Your task to perform on an android device: Open Youtube and go to "Your channel" Image 0: 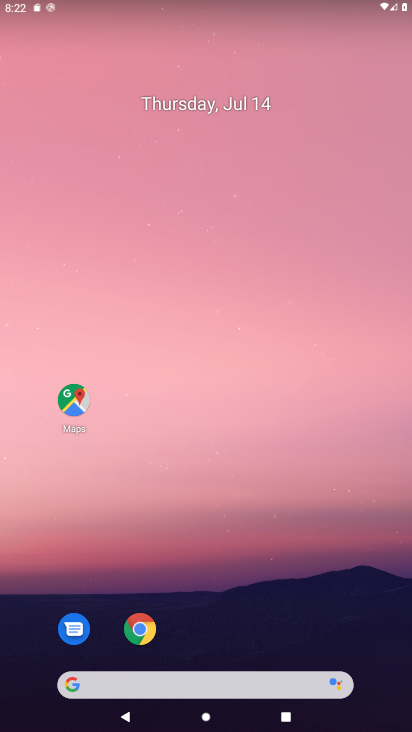
Step 0: drag from (202, 626) to (231, 8)
Your task to perform on an android device: Open Youtube and go to "Your channel" Image 1: 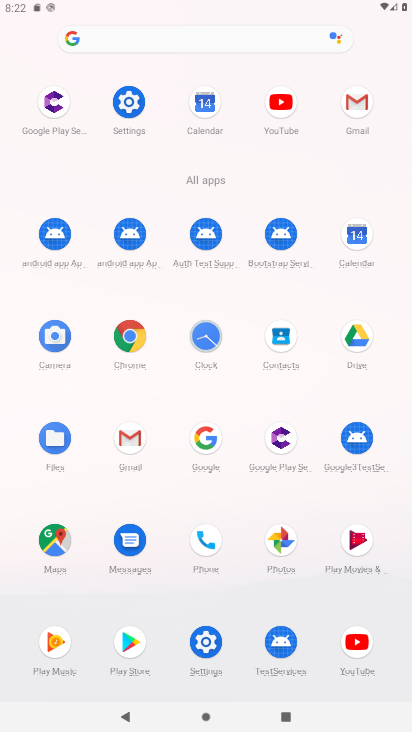
Step 1: click (363, 653)
Your task to perform on an android device: Open Youtube and go to "Your channel" Image 2: 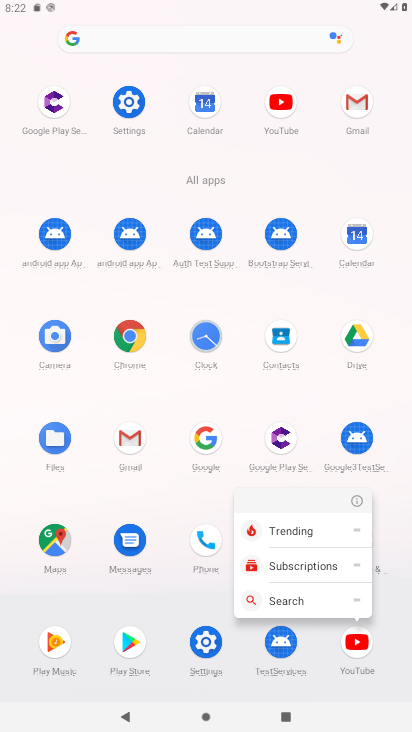
Step 2: click (363, 647)
Your task to perform on an android device: Open Youtube and go to "Your channel" Image 3: 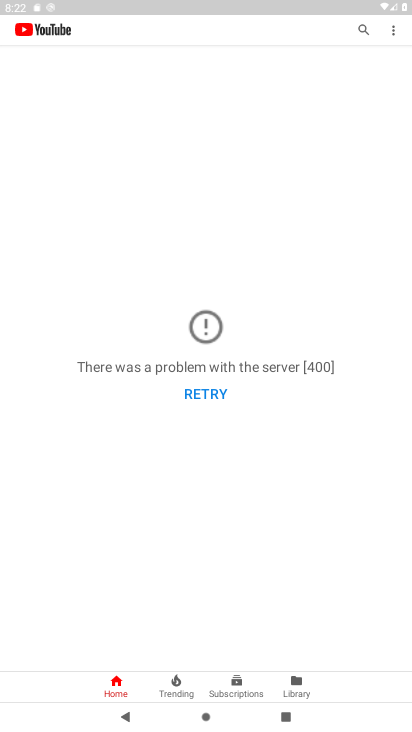
Step 3: click (196, 392)
Your task to perform on an android device: Open Youtube and go to "Your channel" Image 4: 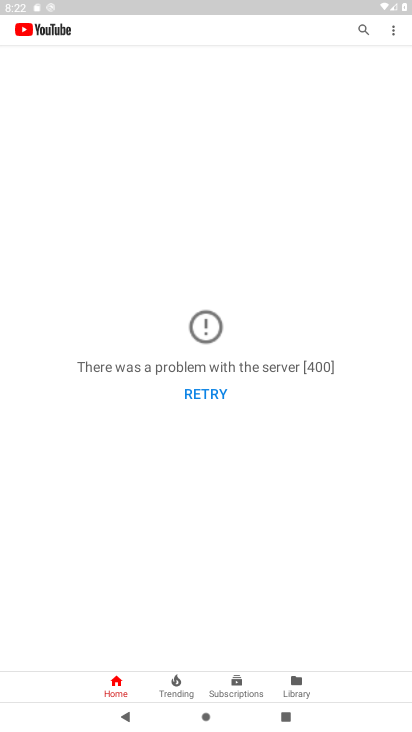
Step 4: click (196, 395)
Your task to perform on an android device: Open Youtube and go to "Your channel" Image 5: 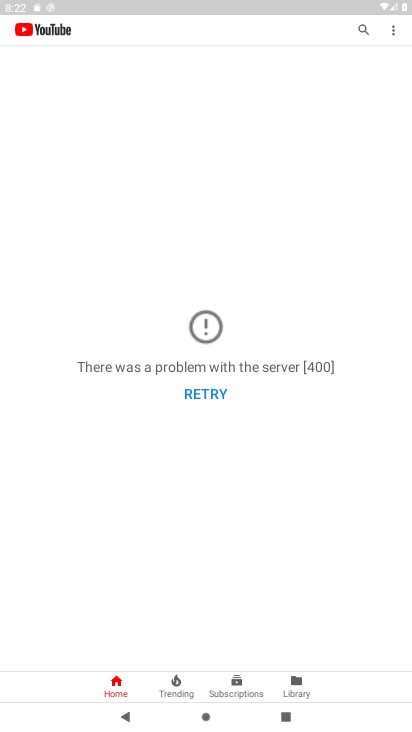
Step 5: click (195, 396)
Your task to perform on an android device: Open Youtube and go to "Your channel" Image 6: 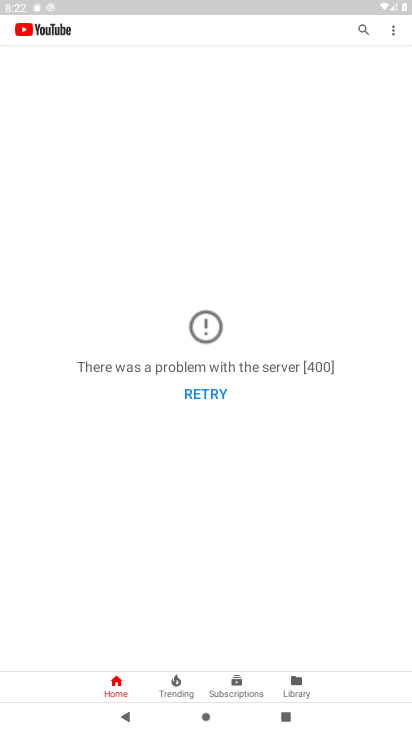
Step 6: click (195, 396)
Your task to perform on an android device: Open Youtube and go to "Your channel" Image 7: 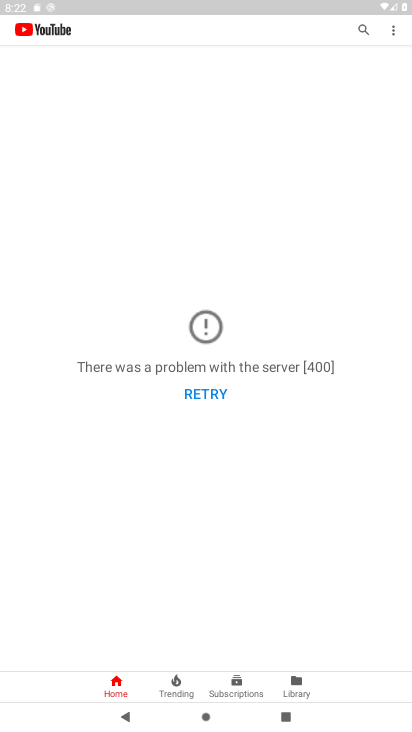
Step 7: task complete